Your task to perform on an android device: How big is the earth? Image 0: 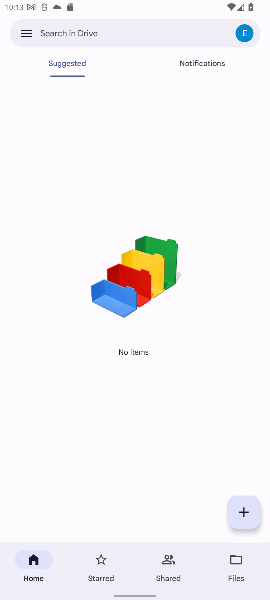
Step 0: press home button
Your task to perform on an android device: How big is the earth? Image 1: 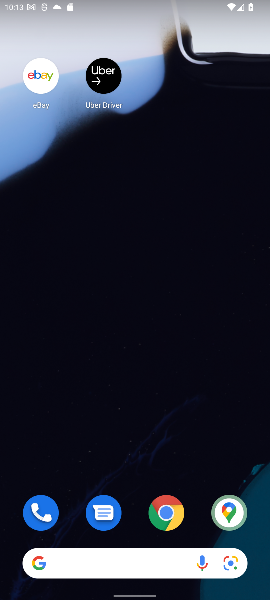
Step 1: drag from (131, 520) to (131, 284)
Your task to perform on an android device: How big is the earth? Image 2: 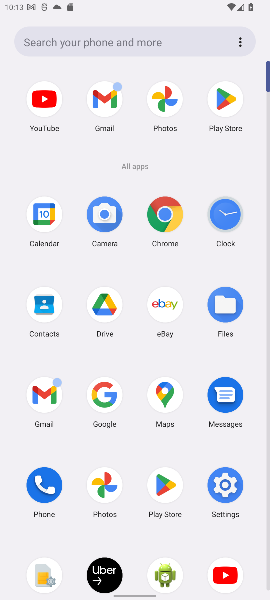
Step 2: click (107, 401)
Your task to perform on an android device: How big is the earth? Image 3: 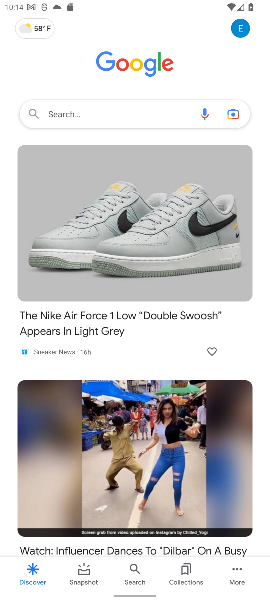
Step 3: click (67, 109)
Your task to perform on an android device: How big is the earth? Image 4: 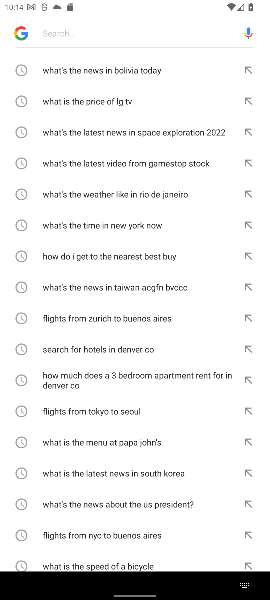
Step 4: type "How big is the earth?"
Your task to perform on an android device: How big is the earth? Image 5: 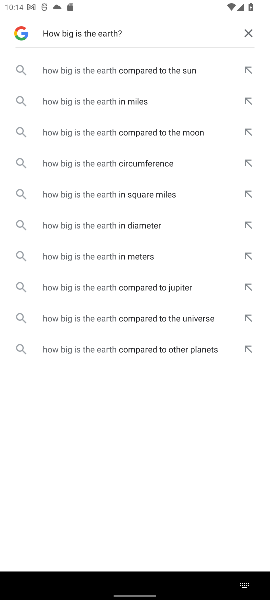
Step 5: click (151, 103)
Your task to perform on an android device: How big is the earth? Image 6: 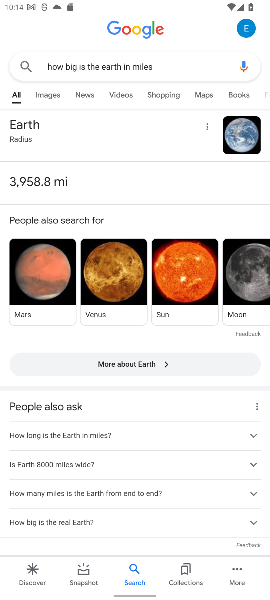
Step 6: task complete